Your task to perform on an android device: add a contact Image 0: 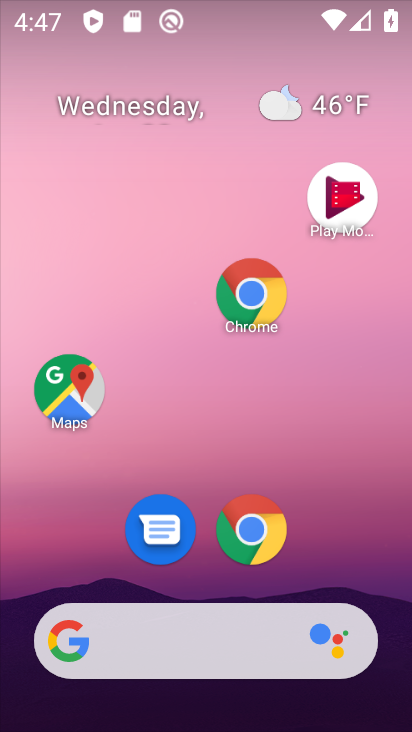
Step 0: drag from (331, 337) to (337, 73)
Your task to perform on an android device: add a contact Image 1: 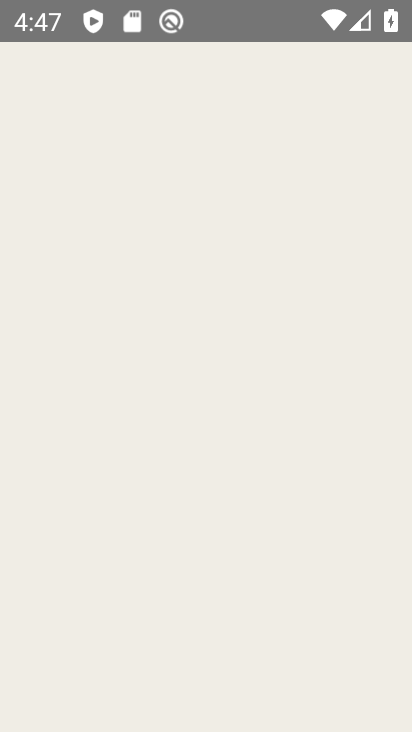
Step 1: press home button
Your task to perform on an android device: add a contact Image 2: 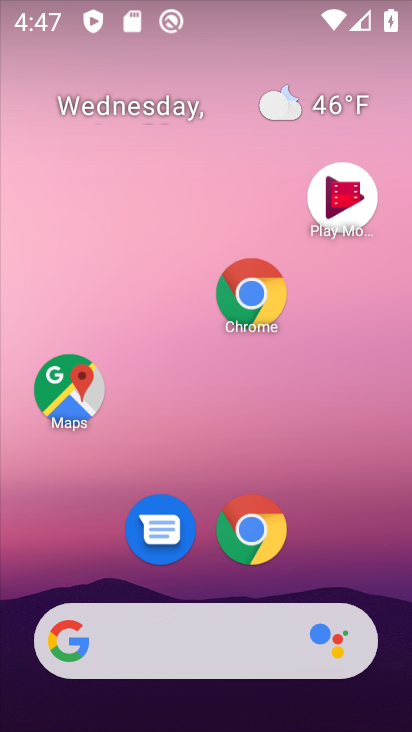
Step 2: drag from (332, 322) to (332, 114)
Your task to perform on an android device: add a contact Image 3: 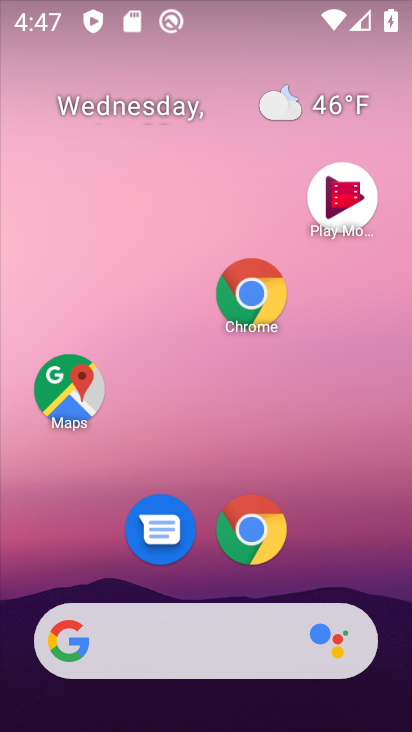
Step 3: drag from (329, 370) to (343, 36)
Your task to perform on an android device: add a contact Image 4: 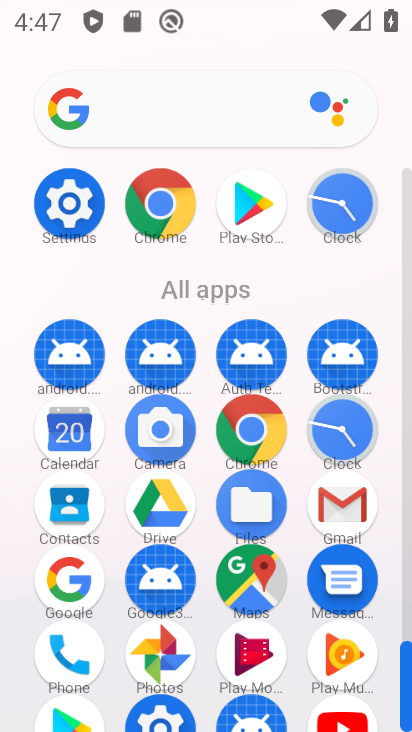
Step 4: click (65, 514)
Your task to perform on an android device: add a contact Image 5: 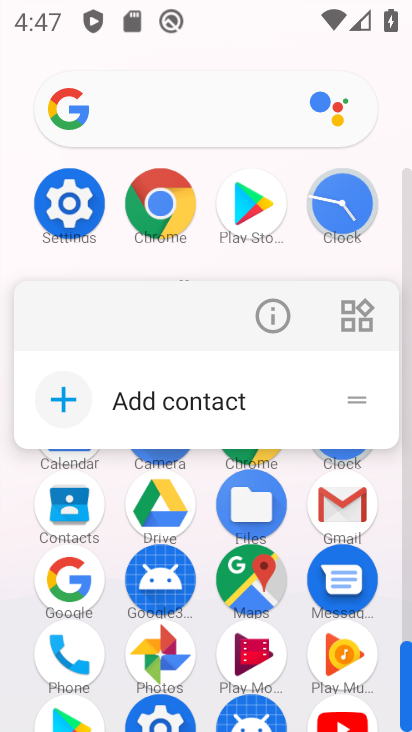
Step 5: click (80, 526)
Your task to perform on an android device: add a contact Image 6: 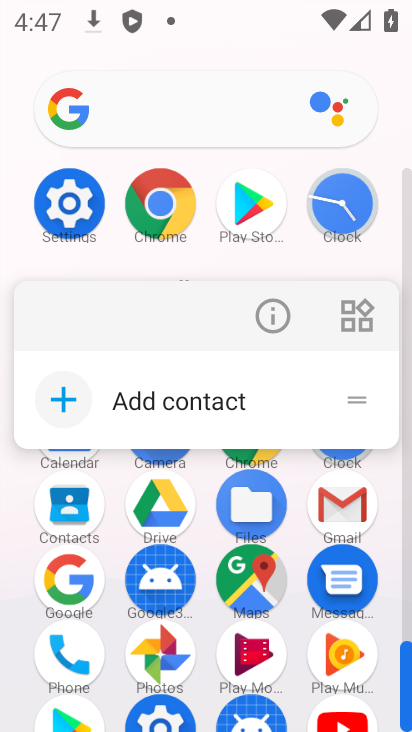
Step 6: click (208, 407)
Your task to perform on an android device: add a contact Image 7: 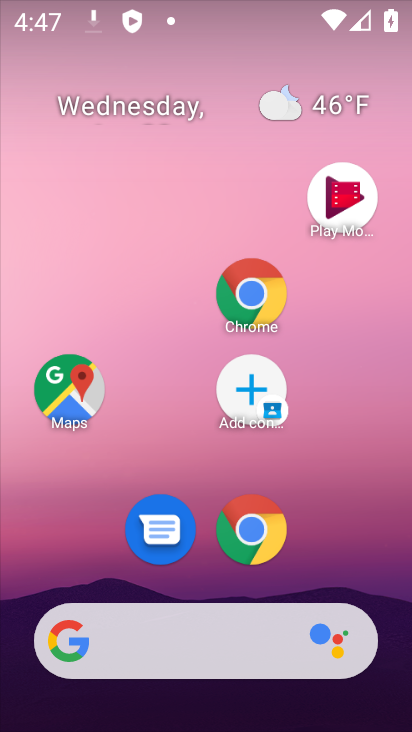
Step 7: drag from (341, 507) to (311, 180)
Your task to perform on an android device: add a contact Image 8: 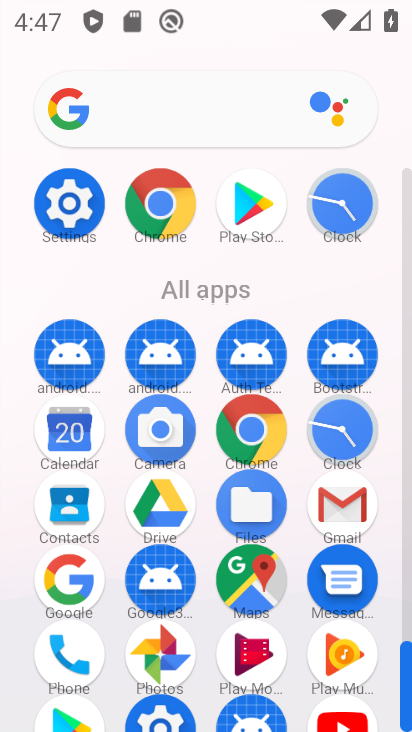
Step 8: click (67, 509)
Your task to perform on an android device: add a contact Image 9: 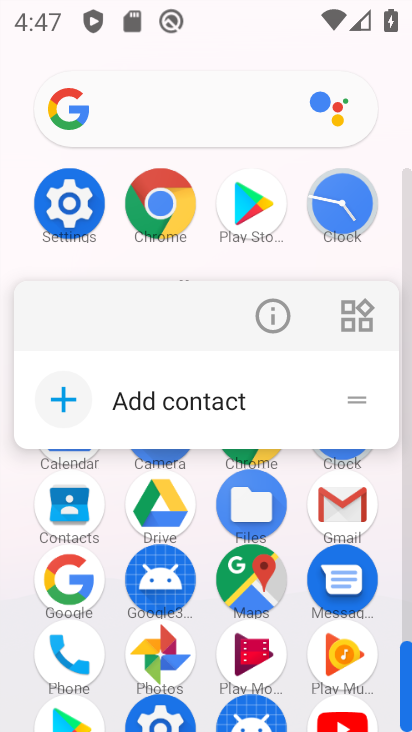
Step 9: click (78, 513)
Your task to perform on an android device: add a contact Image 10: 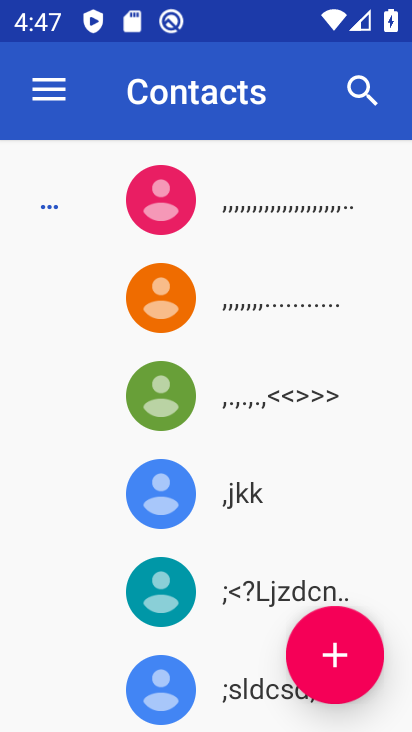
Step 10: click (322, 674)
Your task to perform on an android device: add a contact Image 11: 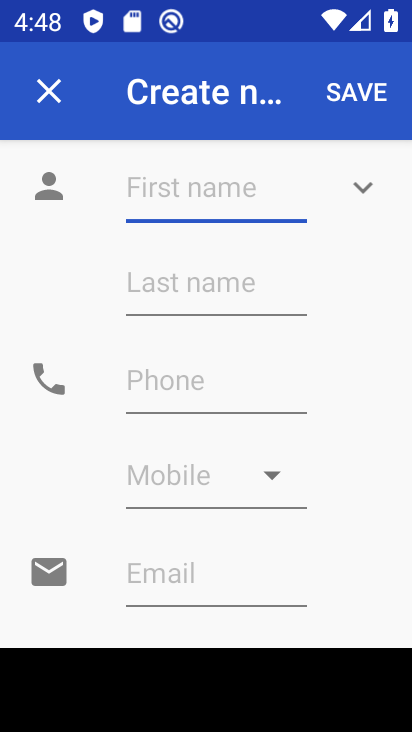
Step 11: type "john"
Your task to perform on an android device: add a contact Image 12: 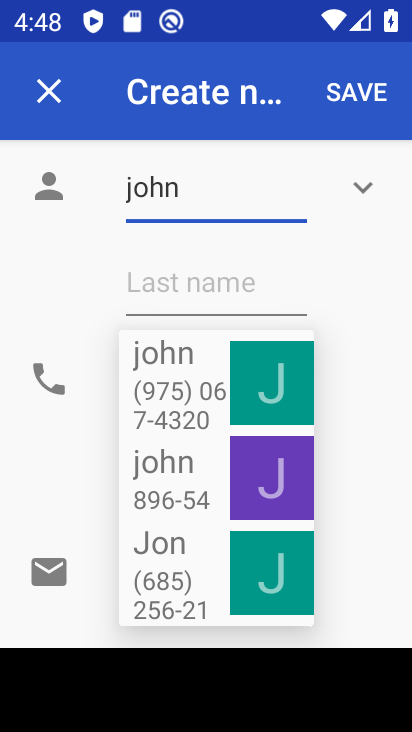
Step 12: type "son"
Your task to perform on an android device: add a contact Image 13: 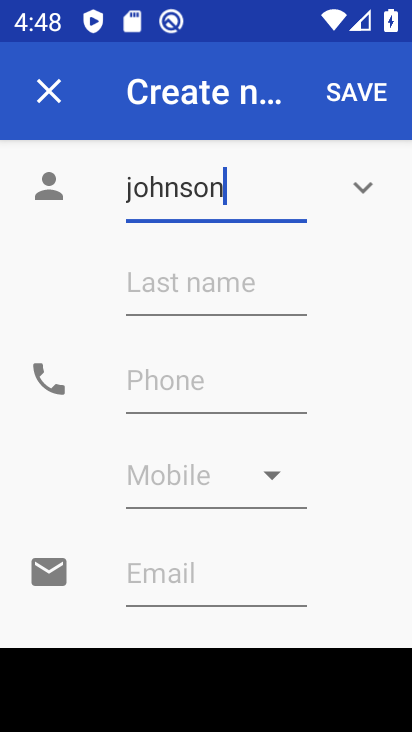
Step 13: click (180, 386)
Your task to perform on an android device: add a contact Image 14: 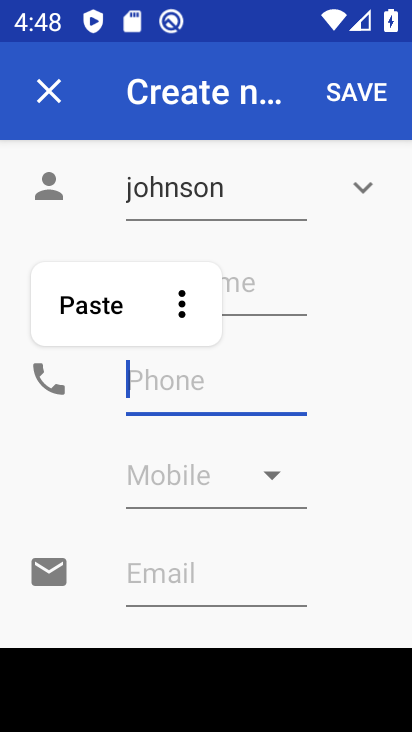
Step 14: type "4354678567"
Your task to perform on an android device: add a contact Image 15: 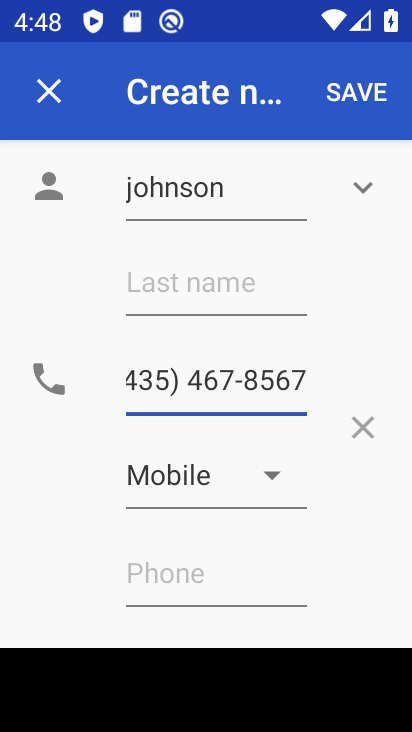
Step 15: click (362, 80)
Your task to perform on an android device: add a contact Image 16: 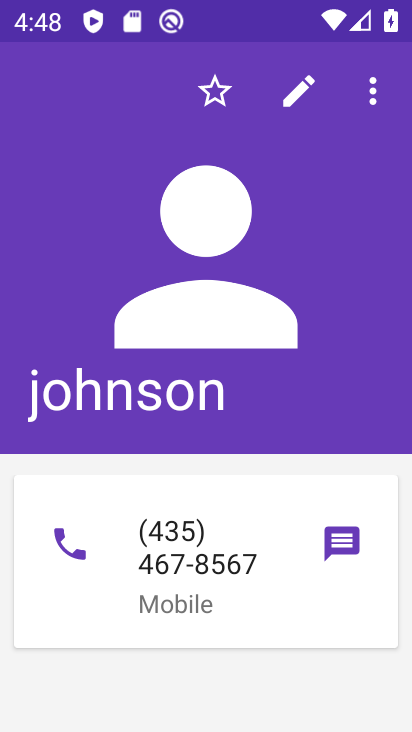
Step 16: task complete